Your task to perform on an android device: set default search engine in the chrome app Image 0: 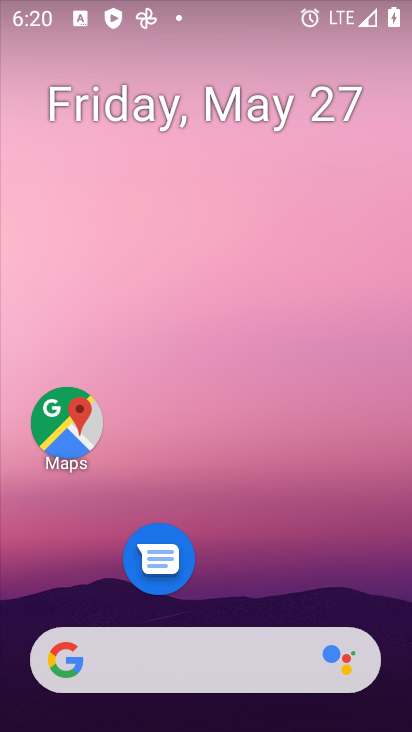
Step 0: drag from (308, 699) to (363, 154)
Your task to perform on an android device: set default search engine in the chrome app Image 1: 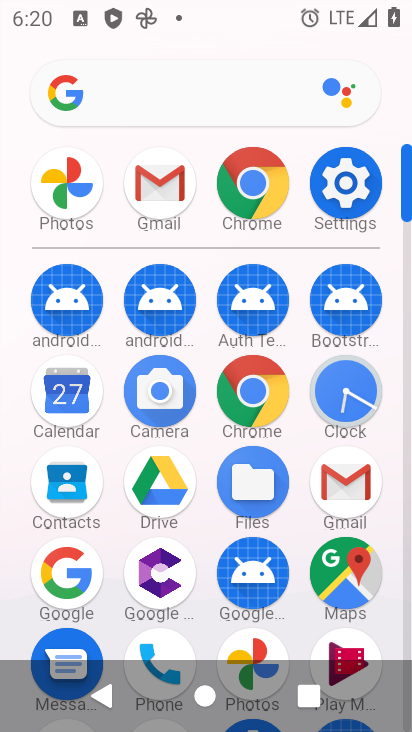
Step 1: click (257, 406)
Your task to perform on an android device: set default search engine in the chrome app Image 2: 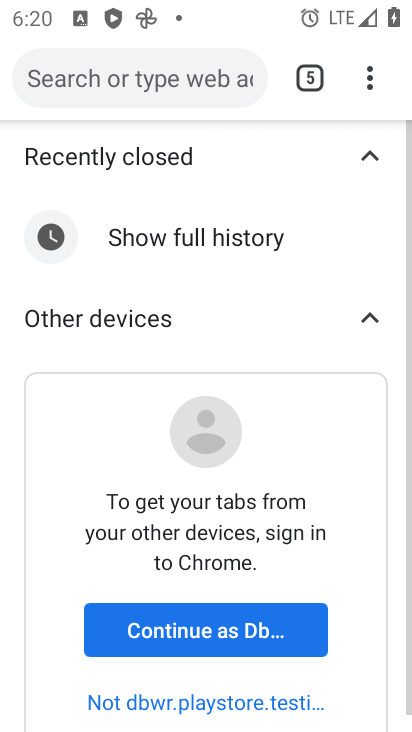
Step 2: drag from (367, 68) to (191, 644)
Your task to perform on an android device: set default search engine in the chrome app Image 3: 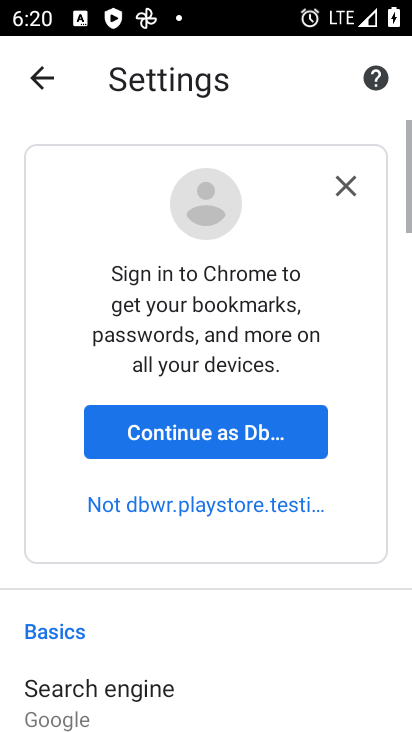
Step 3: drag from (222, 664) to (296, 189)
Your task to perform on an android device: set default search engine in the chrome app Image 4: 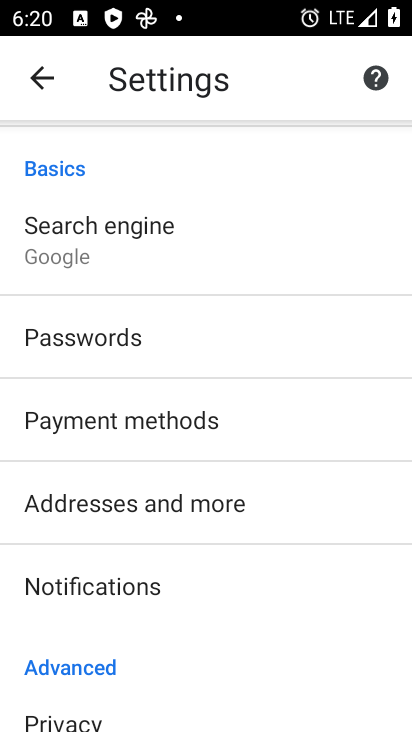
Step 4: click (157, 254)
Your task to perform on an android device: set default search engine in the chrome app Image 5: 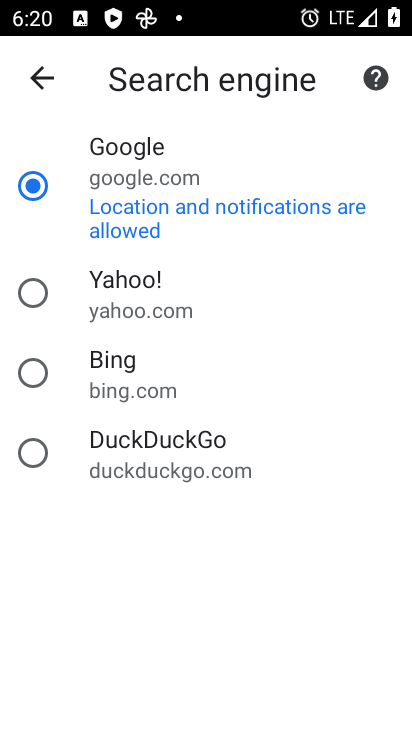
Step 5: task complete